Your task to perform on an android device: snooze an email in the gmail app Image 0: 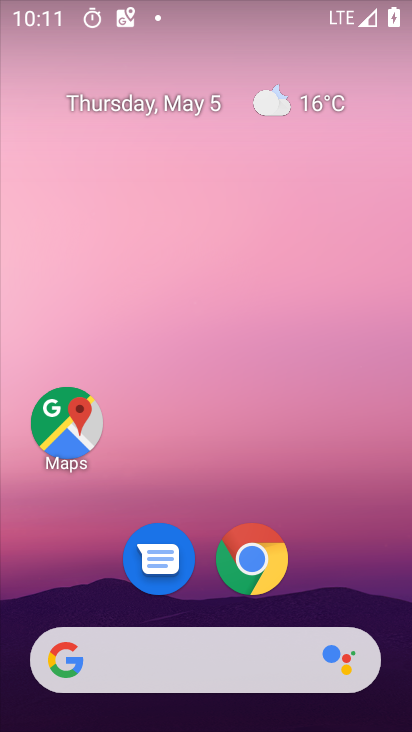
Step 0: drag from (223, 577) to (309, 0)
Your task to perform on an android device: snooze an email in the gmail app Image 1: 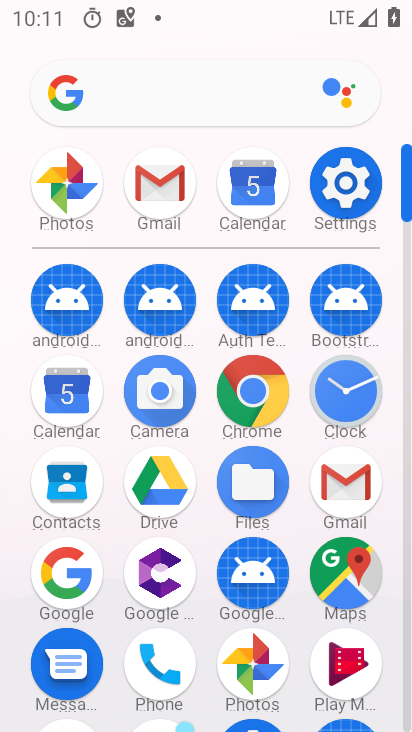
Step 1: click (341, 486)
Your task to perform on an android device: snooze an email in the gmail app Image 2: 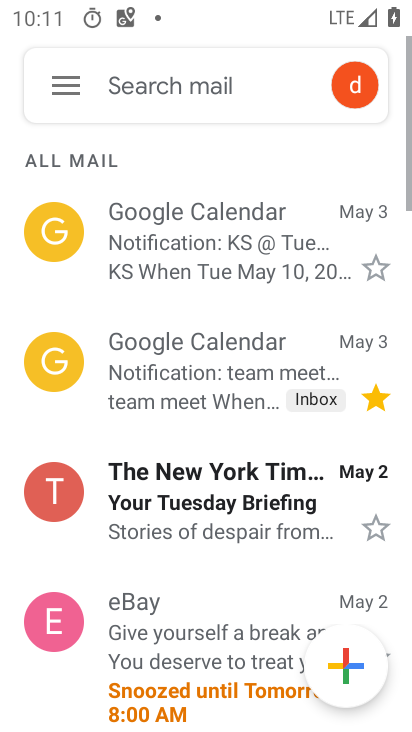
Step 2: click (64, 243)
Your task to perform on an android device: snooze an email in the gmail app Image 3: 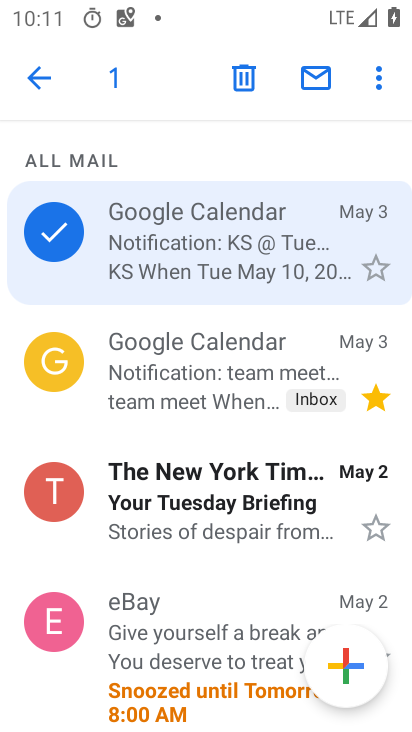
Step 3: click (385, 84)
Your task to perform on an android device: snooze an email in the gmail app Image 4: 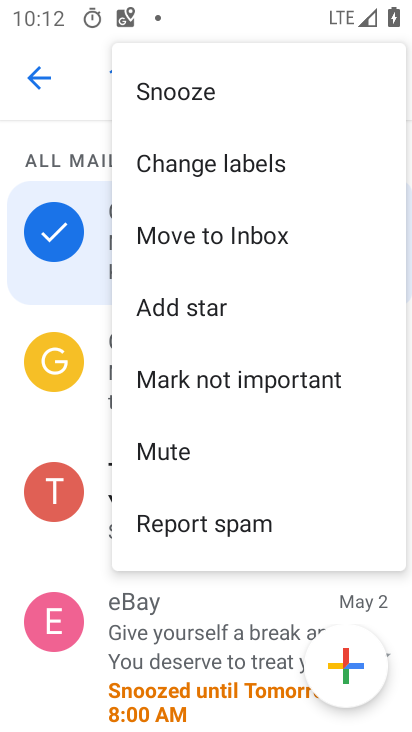
Step 4: click (164, 99)
Your task to perform on an android device: snooze an email in the gmail app Image 5: 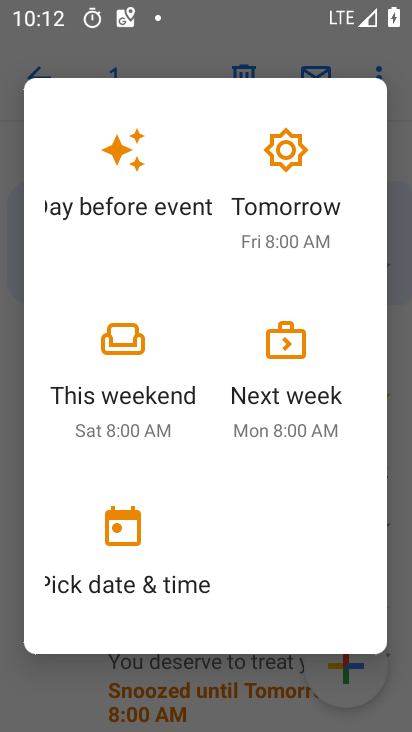
Step 5: click (157, 186)
Your task to perform on an android device: snooze an email in the gmail app Image 6: 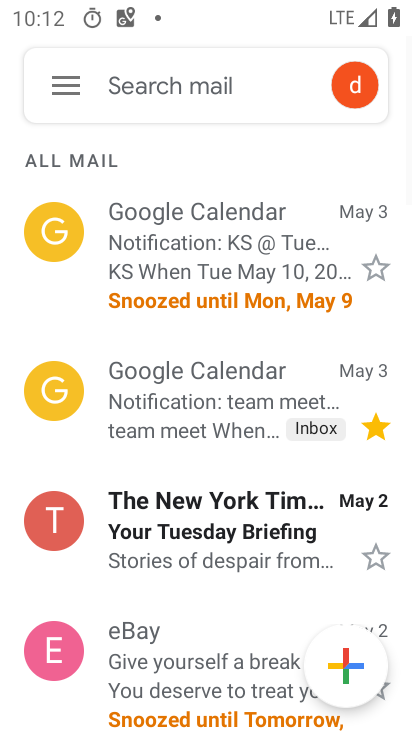
Step 6: task complete